Your task to perform on an android device: Go to Amazon Image 0: 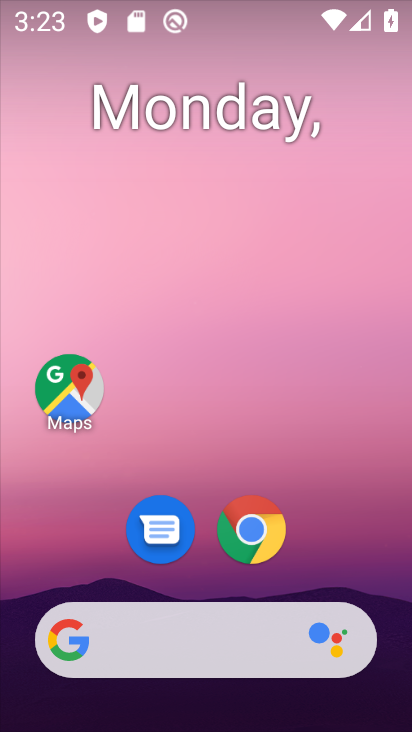
Step 0: click (265, 525)
Your task to perform on an android device: Go to Amazon Image 1: 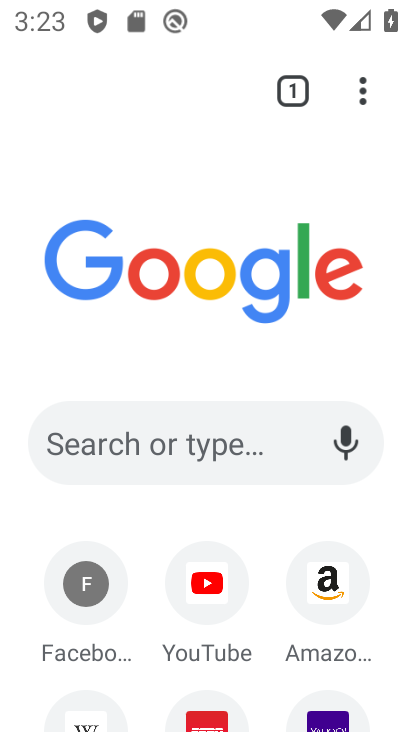
Step 1: click (329, 568)
Your task to perform on an android device: Go to Amazon Image 2: 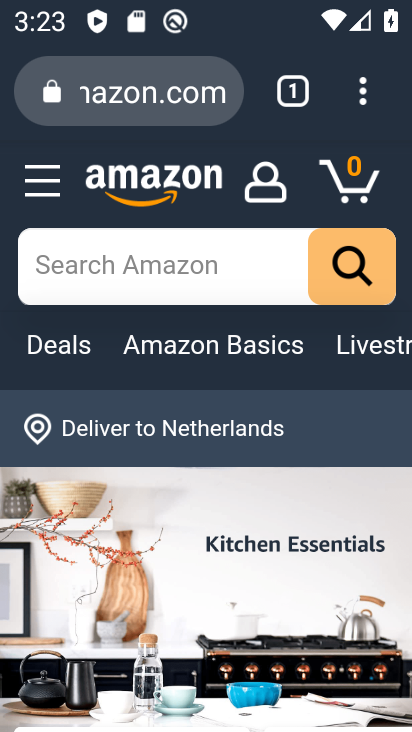
Step 2: task complete